Your task to perform on an android device: Open Chrome and go to settings Image 0: 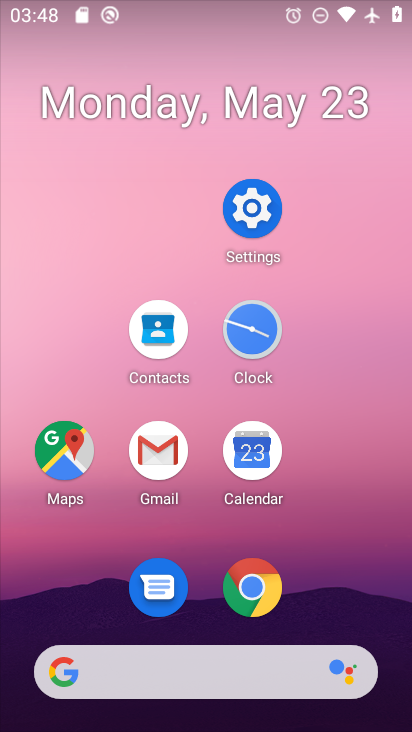
Step 0: click (276, 586)
Your task to perform on an android device: Open Chrome and go to settings Image 1: 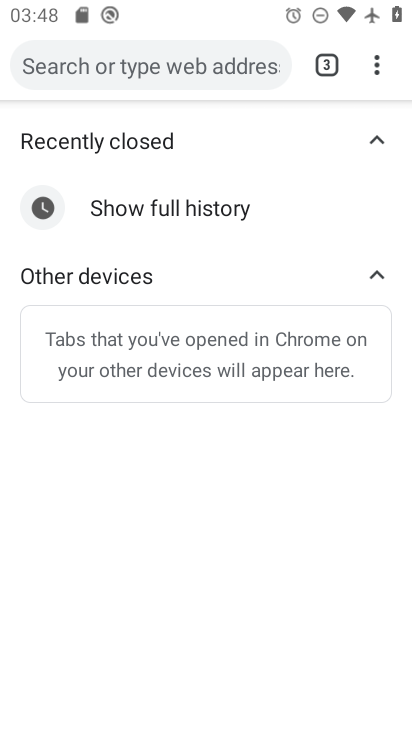
Step 1: click (377, 62)
Your task to perform on an android device: Open Chrome and go to settings Image 2: 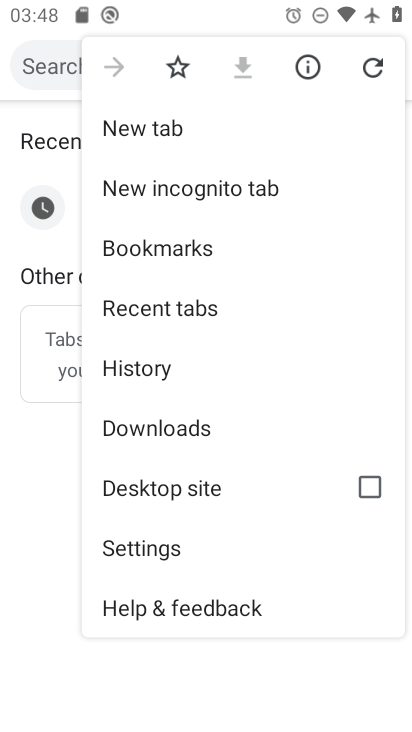
Step 2: click (193, 538)
Your task to perform on an android device: Open Chrome and go to settings Image 3: 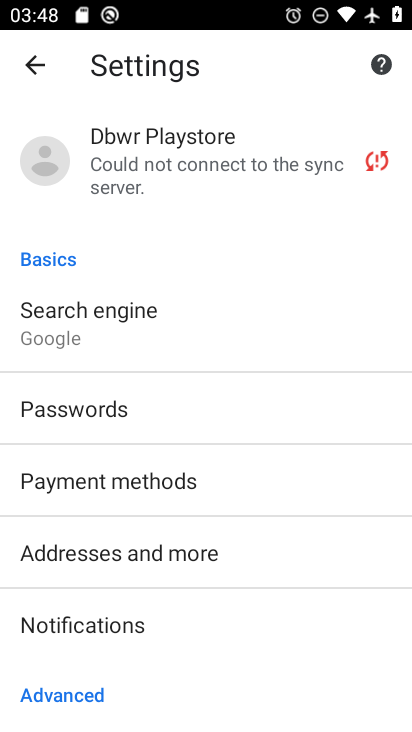
Step 3: task complete